Your task to perform on an android device: Is it going to rain this weekend? Image 0: 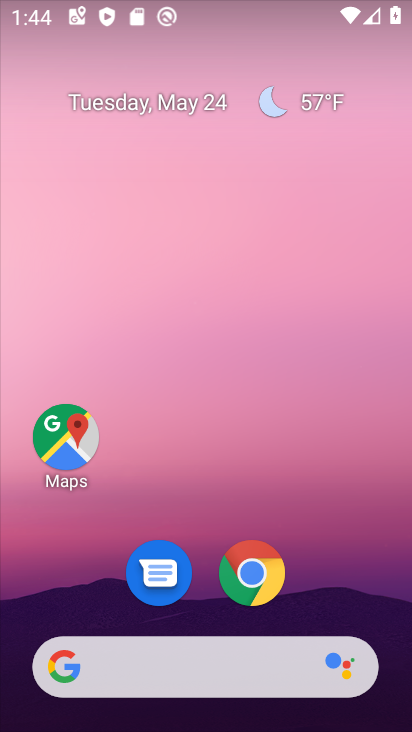
Step 0: drag from (380, 588) to (391, 126)
Your task to perform on an android device: Is it going to rain this weekend? Image 1: 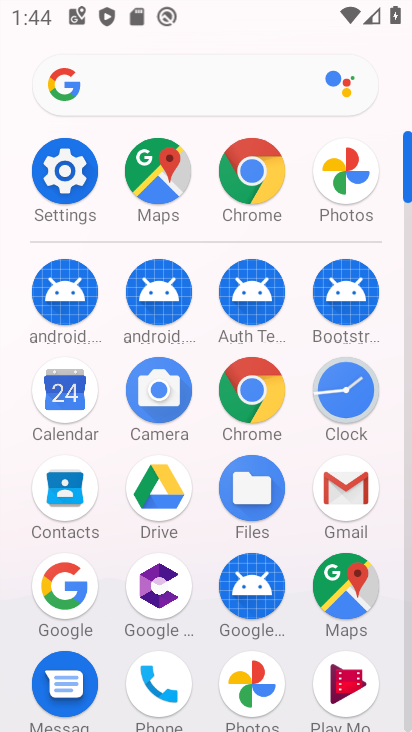
Step 1: click (271, 393)
Your task to perform on an android device: Is it going to rain this weekend? Image 2: 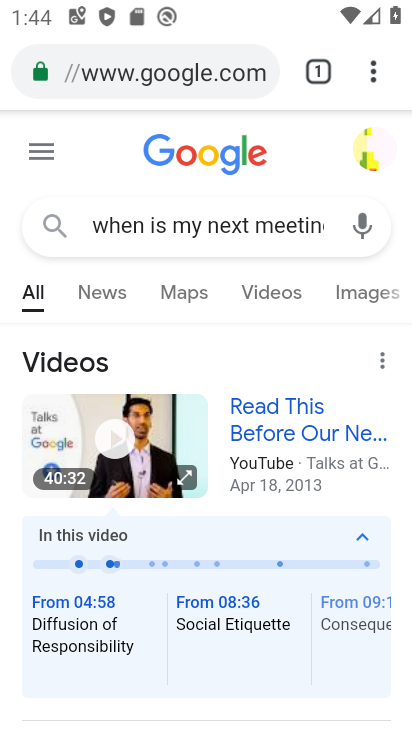
Step 2: click (186, 74)
Your task to perform on an android device: Is it going to rain this weekend? Image 3: 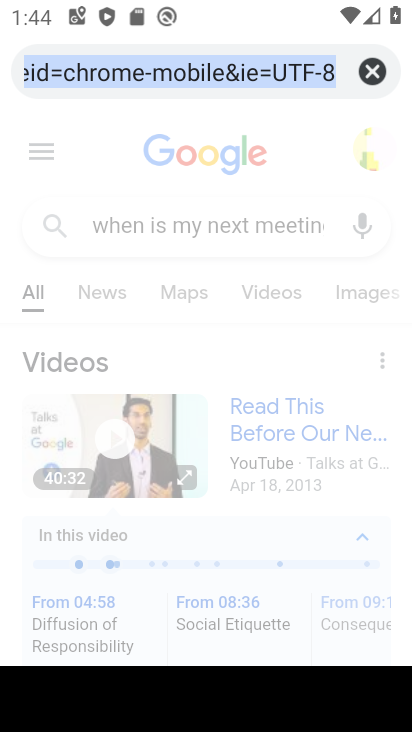
Step 3: click (374, 80)
Your task to perform on an android device: Is it going to rain this weekend? Image 4: 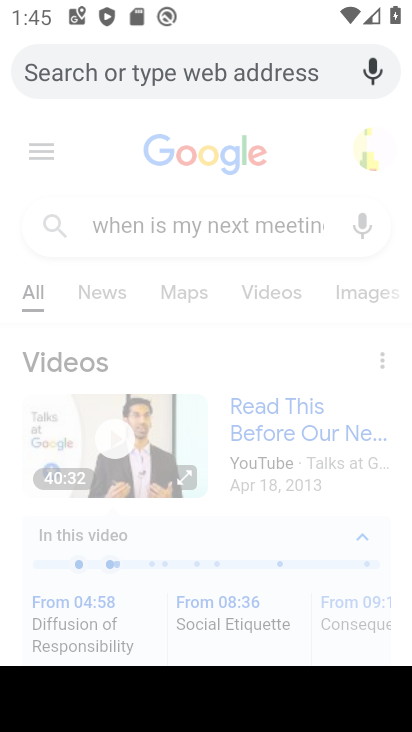
Step 4: type "is it going to rain this weekend "
Your task to perform on an android device: Is it going to rain this weekend? Image 5: 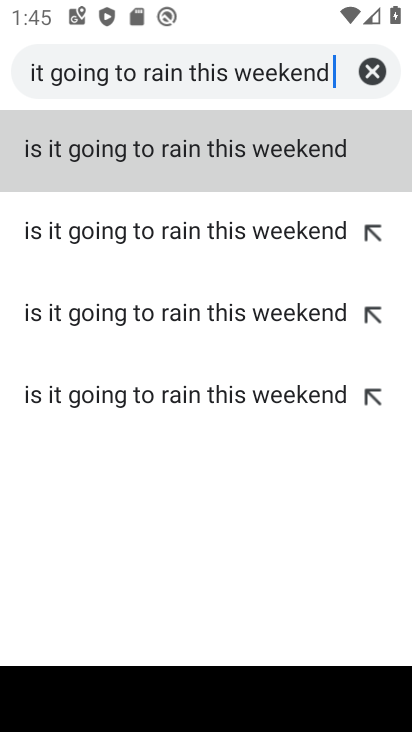
Step 5: click (294, 167)
Your task to perform on an android device: Is it going to rain this weekend? Image 6: 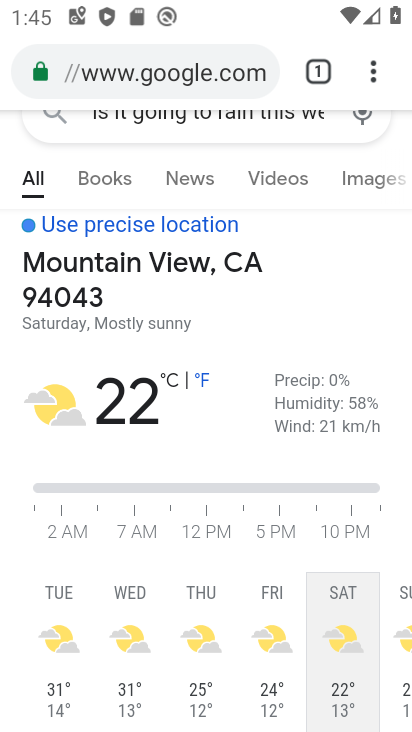
Step 6: task complete